Your task to perform on an android device: Open CNN.com Image 0: 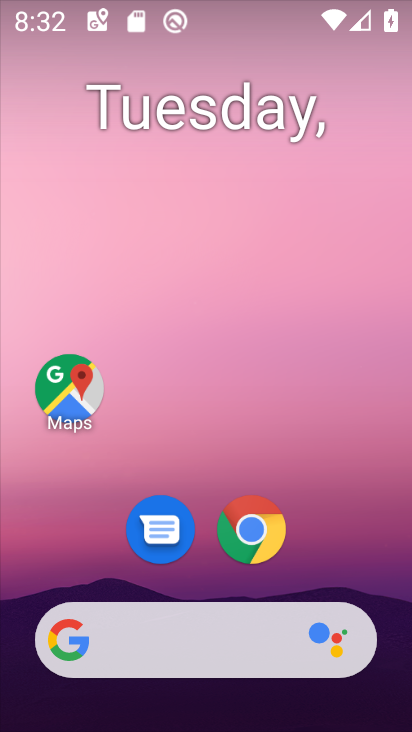
Step 0: click (232, 518)
Your task to perform on an android device: Open CNN.com Image 1: 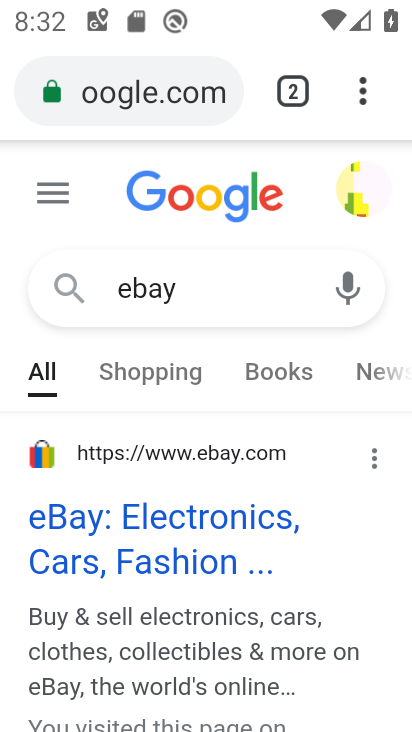
Step 1: click (301, 85)
Your task to perform on an android device: Open CNN.com Image 2: 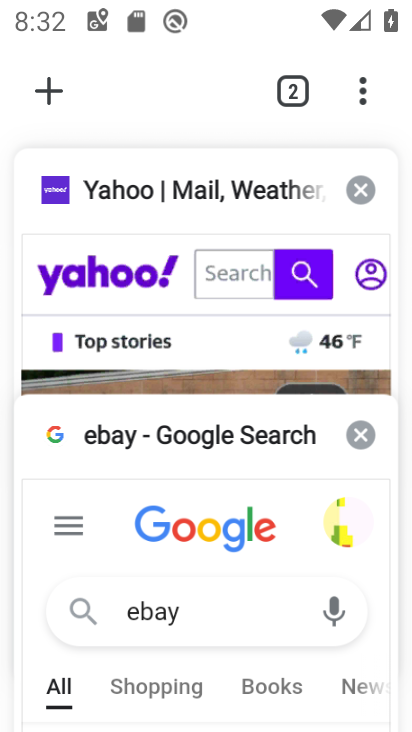
Step 2: click (52, 88)
Your task to perform on an android device: Open CNN.com Image 3: 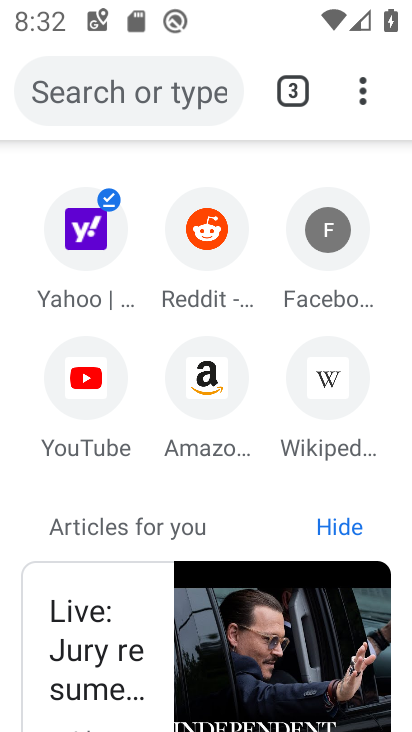
Step 3: click (154, 85)
Your task to perform on an android device: Open CNN.com Image 4: 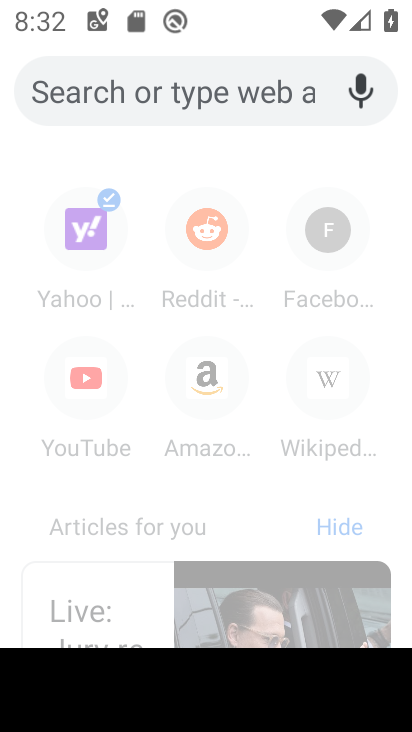
Step 4: type "cnn.com"
Your task to perform on an android device: Open CNN.com Image 5: 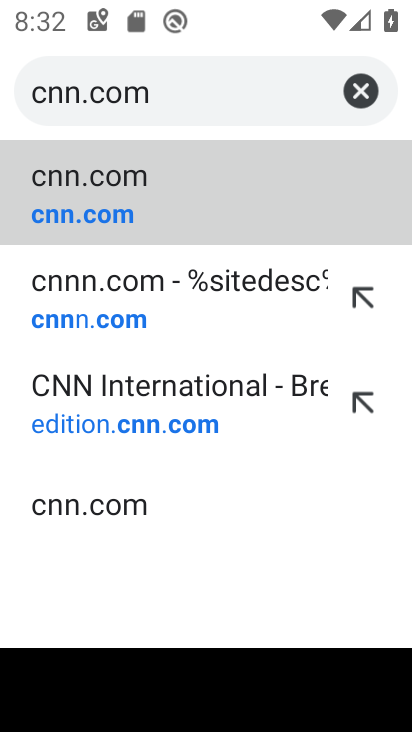
Step 5: click (150, 215)
Your task to perform on an android device: Open CNN.com Image 6: 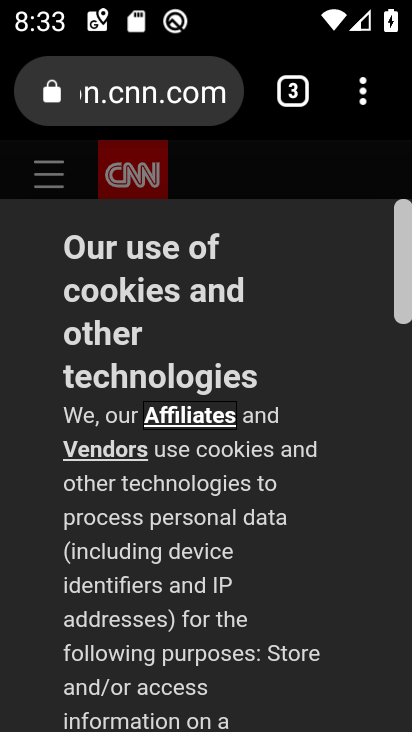
Step 6: task complete